Your task to perform on an android device: Search for pizza restaurants on Maps Image 0: 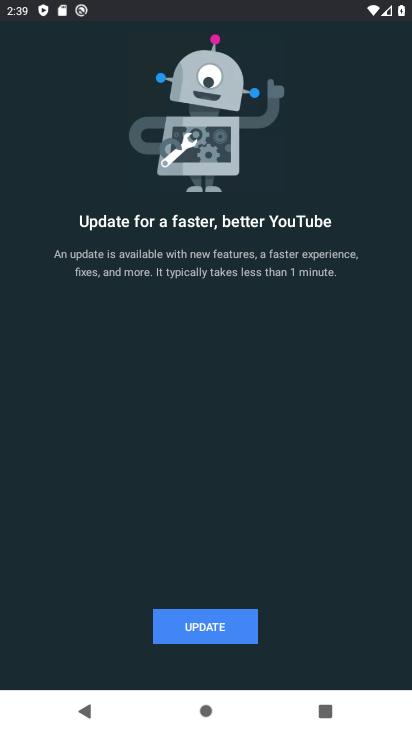
Step 0: press home button
Your task to perform on an android device: Search for pizza restaurants on Maps Image 1: 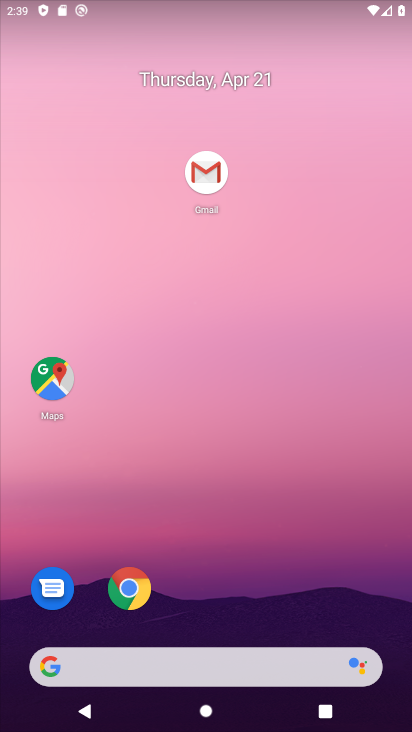
Step 1: drag from (299, 543) to (355, 74)
Your task to perform on an android device: Search for pizza restaurants on Maps Image 2: 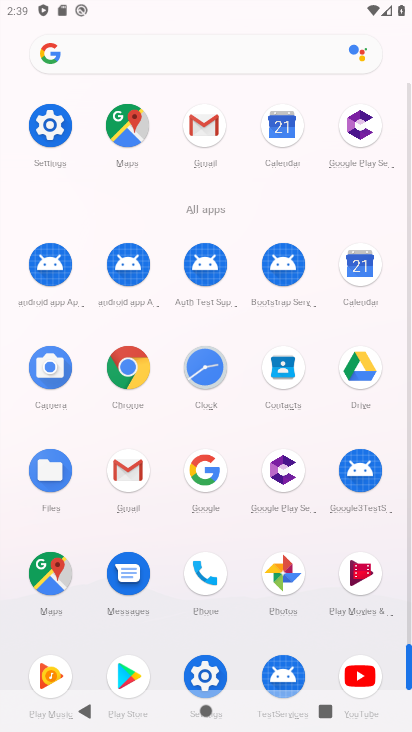
Step 2: click (43, 574)
Your task to perform on an android device: Search for pizza restaurants on Maps Image 3: 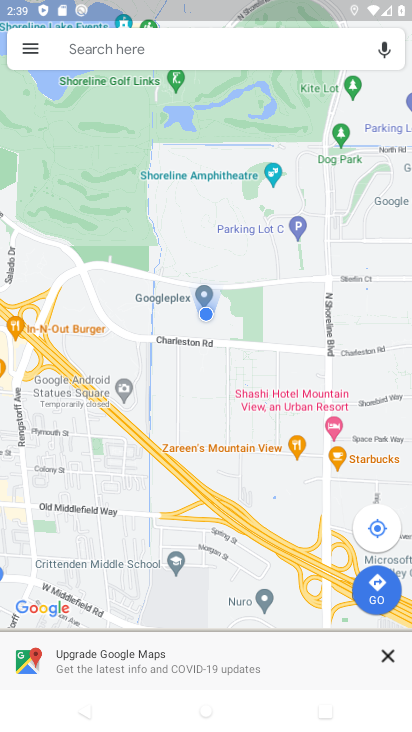
Step 3: click (198, 48)
Your task to perform on an android device: Search for pizza restaurants on Maps Image 4: 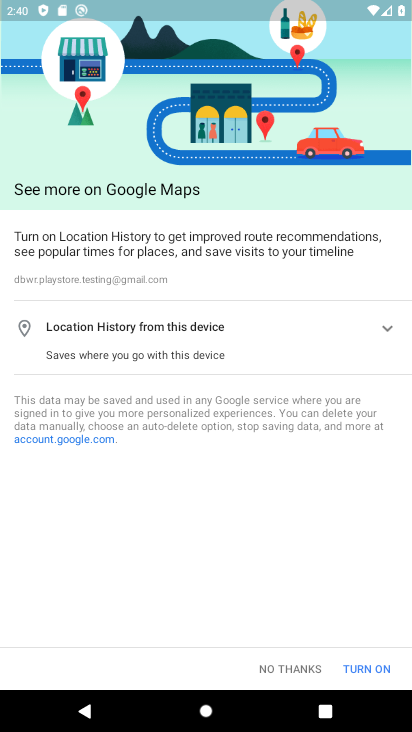
Step 4: click (289, 671)
Your task to perform on an android device: Search for pizza restaurants on Maps Image 5: 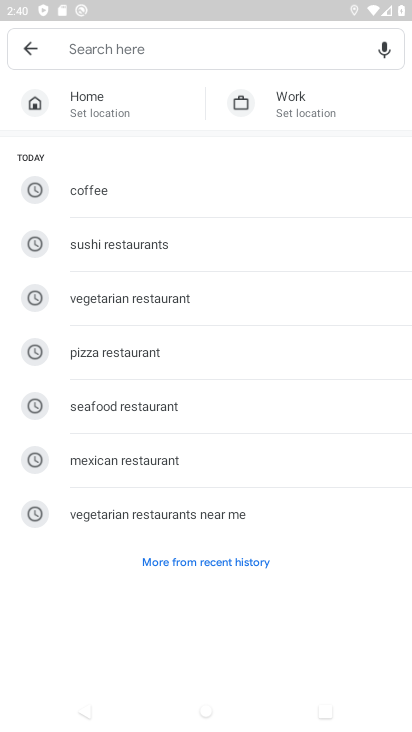
Step 5: click (86, 46)
Your task to perform on an android device: Search for pizza restaurants on Maps Image 6: 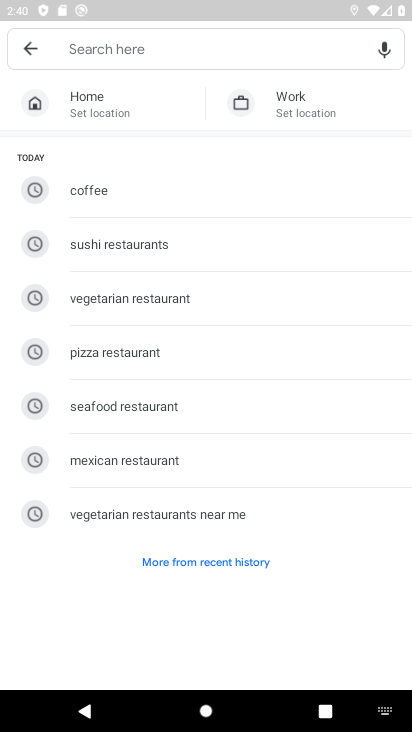
Step 6: type " pizza restaurants"
Your task to perform on an android device: Search for pizza restaurants on Maps Image 7: 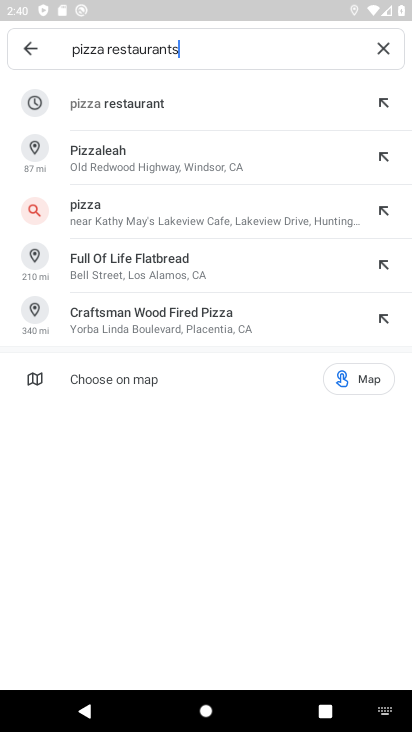
Step 7: click (139, 100)
Your task to perform on an android device: Search for pizza restaurants on Maps Image 8: 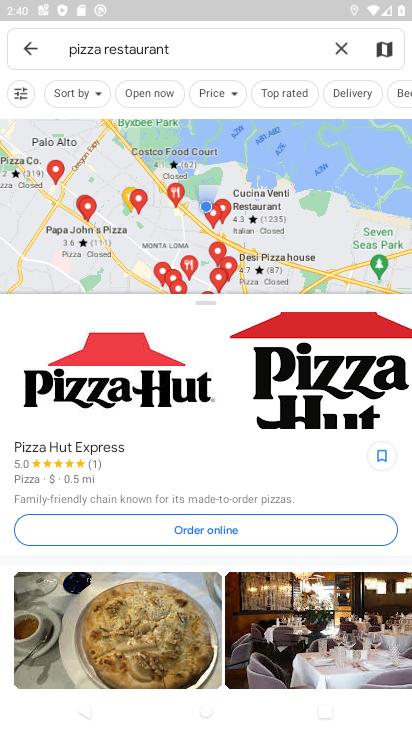
Step 8: task complete